Your task to perform on an android device: remove spam from my inbox in the gmail app Image 0: 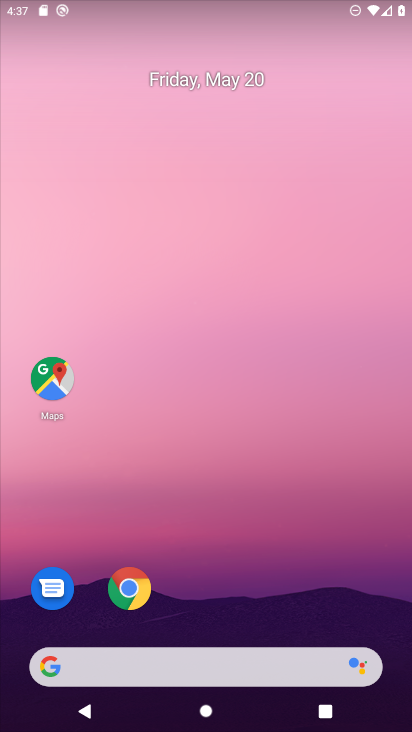
Step 0: press home button
Your task to perform on an android device: remove spam from my inbox in the gmail app Image 1: 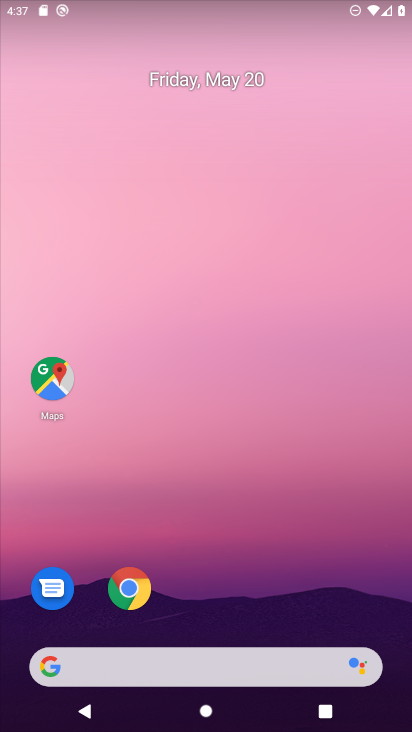
Step 1: drag from (142, 530) to (67, 1)
Your task to perform on an android device: remove spam from my inbox in the gmail app Image 2: 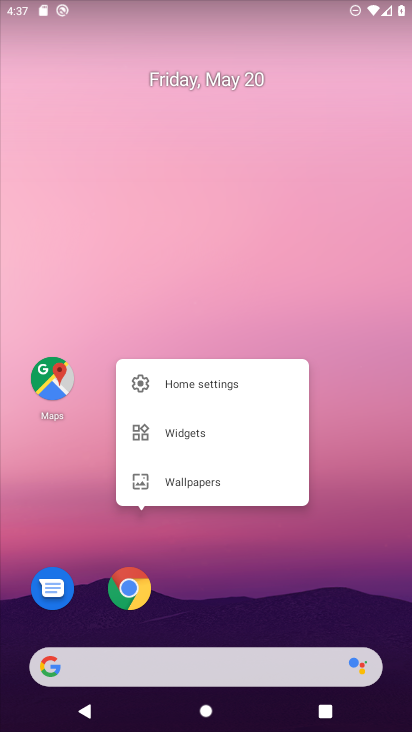
Step 2: click (353, 558)
Your task to perform on an android device: remove spam from my inbox in the gmail app Image 3: 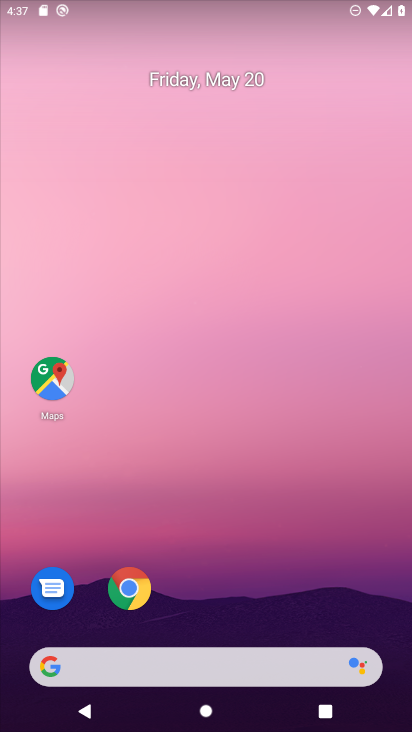
Step 3: drag from (192, 596) to (112, 85)
Your task to perform on an android device: remove spam from my inbox in the gmail app Image 4: 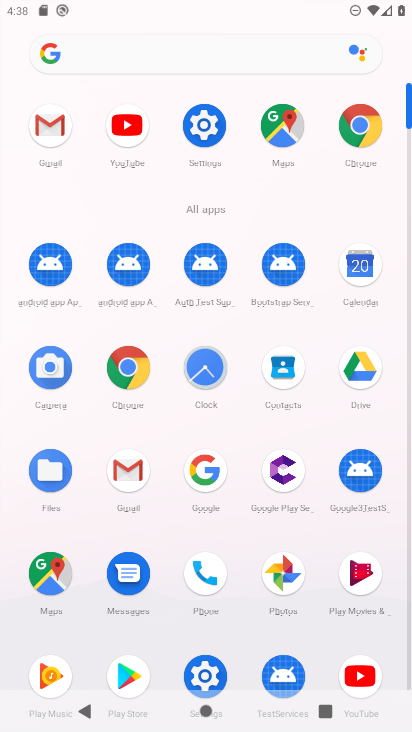
Step 4: click (296, 587)
Your task to perform on an android device: remove spam from my inbox in the gmail app Image 5: 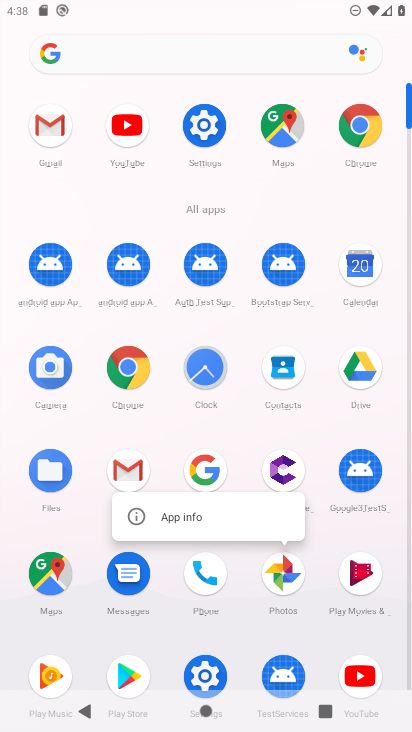
Step 5: click (273, 585)
Your task to perform on an android device: remove spam from my inbox in the gmail app Image 6: 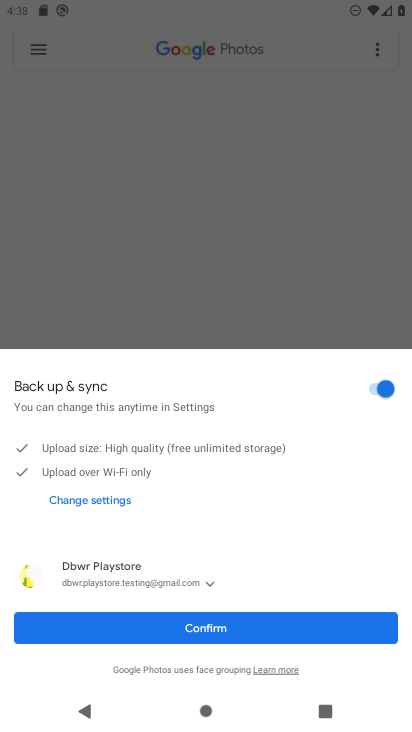
Step 6: click (238, 642)
Your task to perform on an android device: remove spam from my inbox in the gmail app Image 7: 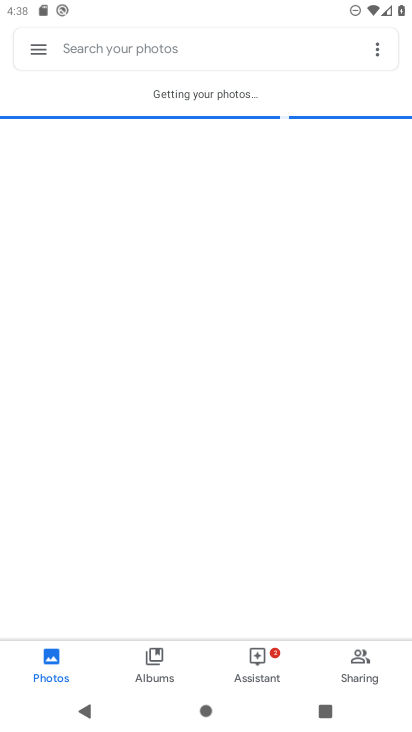
Step 7: click (255, 671)
Your task to perform on an android device: remove spam from my inbox in the gmail app Image 8: 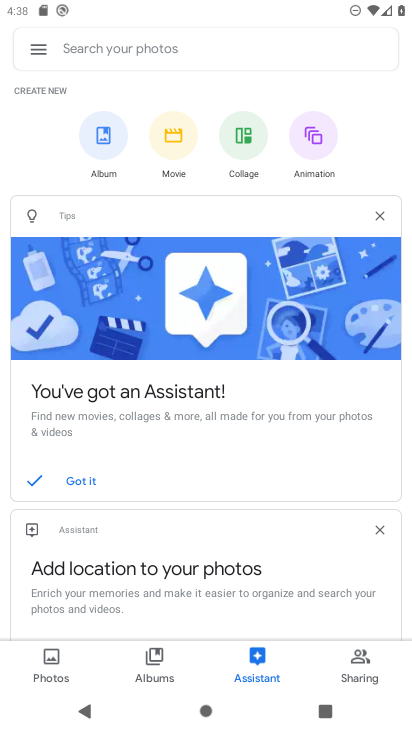
Step 8: task complete